Your task to perform on an android device: Search for sushi restaurants on Maps Image 0: 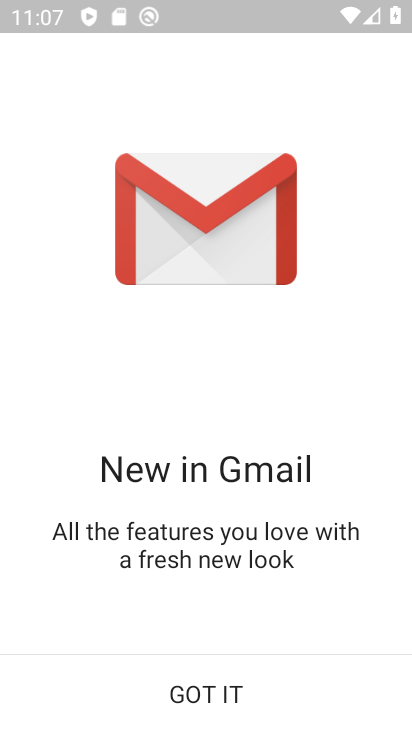
Step 0: press home button
Your task to perform on an android device: Search for sushi restaurants on Maps Image 1: 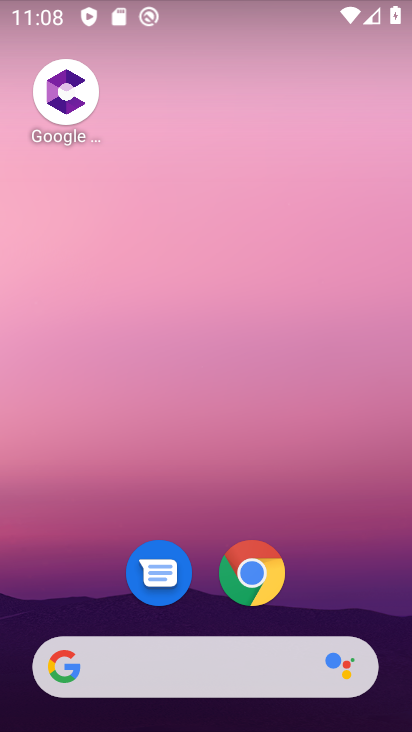
Step 1: drag from (316, 532) to (255, 81)
Your task to perform on an android device: Search for sushi restaurants on Maps Image 2: 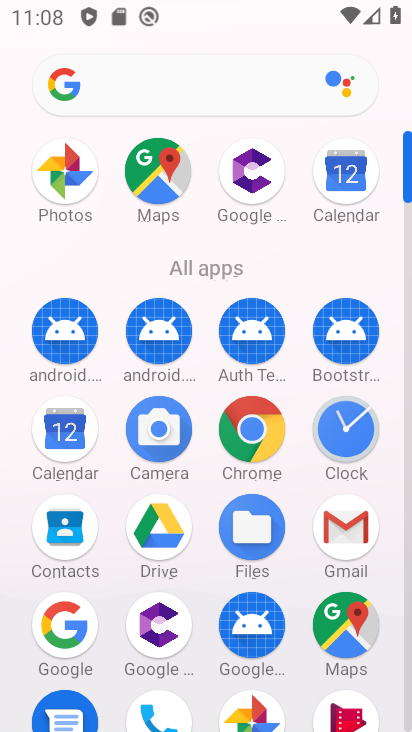
Step 2: click (167, 192)
Your task to perform on an android device: Search for sushi restaurants on Maps Image 3: 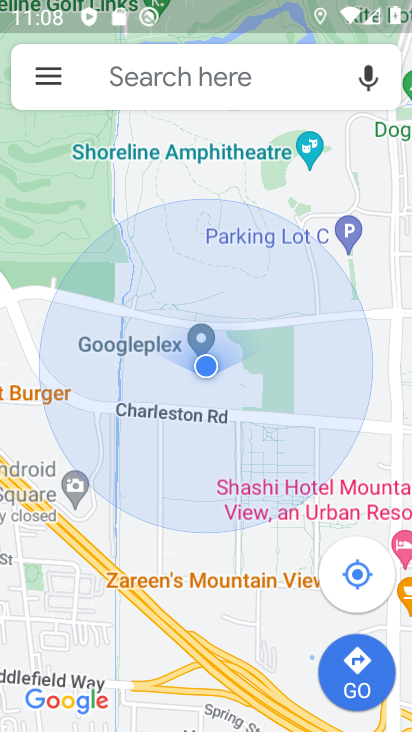
Step 3: click (155, 83)
Your task to perform on an android device: Search for sushi restaurants on Maps Image 4: 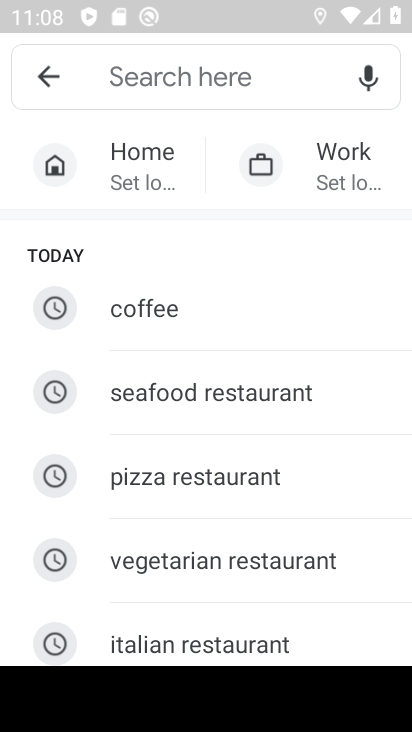
Step 4: drag from (289, 533) to (211, 326)
Your task to perform on an android device: Search for sushi restaurants on Maps Image 5: 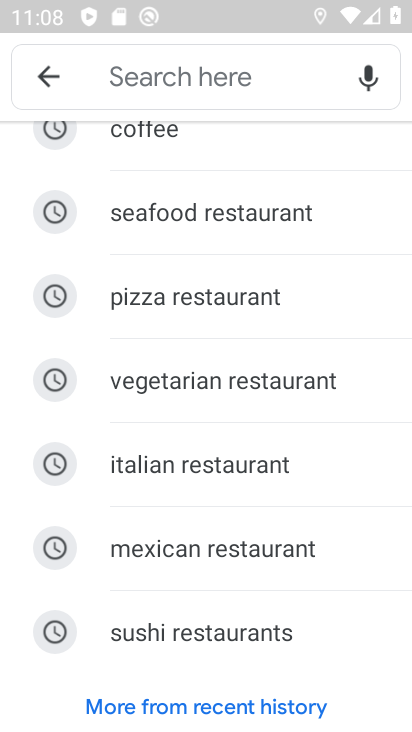
Step 5: click (281, 631)
Your task to perform on an android device: Search for sushi restaurants on Maps Image 6: 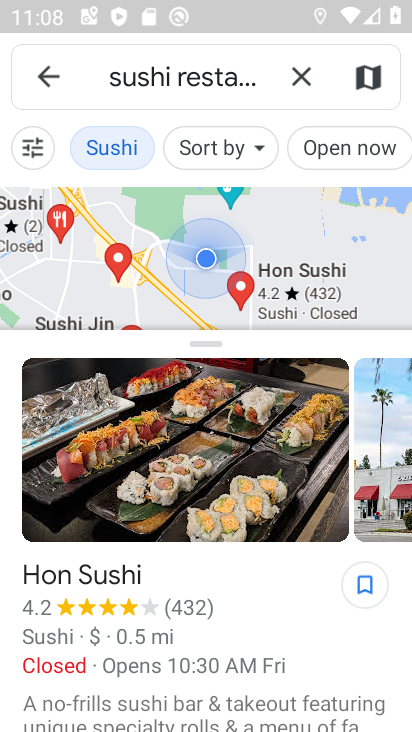
Step 6: task complete